Your task to perform on an android device: Open Google Chrome and click the shortcut for Amazon.com Image 0: 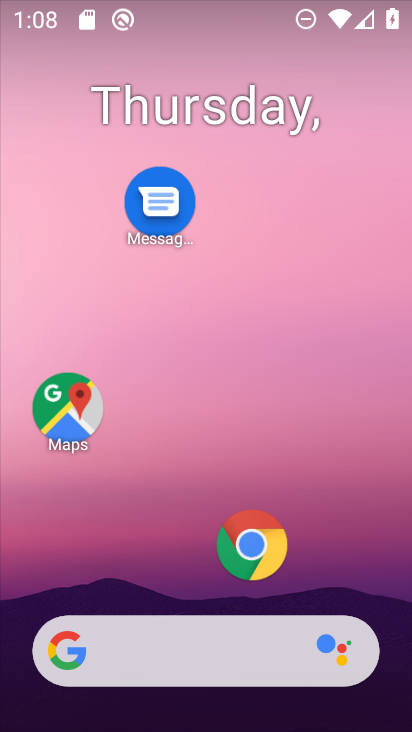
Step 0: click (267, 548)
Your task to perform on an android device: Open Google Chrome and click the shortcut for Amazon.com Image 1: 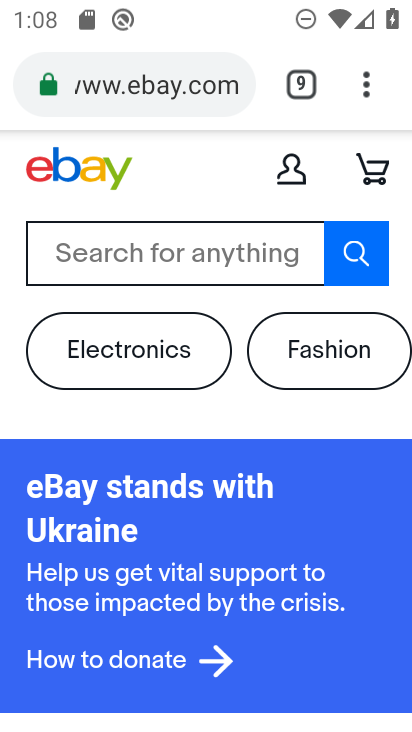
Step 1: click (285, 81)
Your task to perform on an android device: Open Google Chrome and click the shortcut for Amazon.com Image 2: 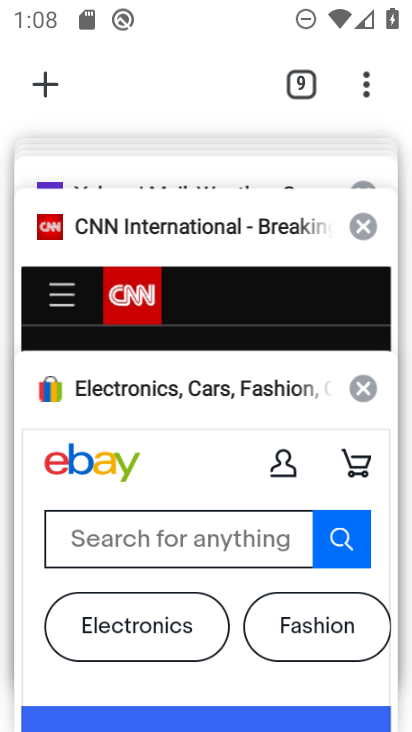
Step 2: click (41, 73)
Your task to perform on an android device: Open Google Chrome and click the shortcut for Amazon.com Image 3: 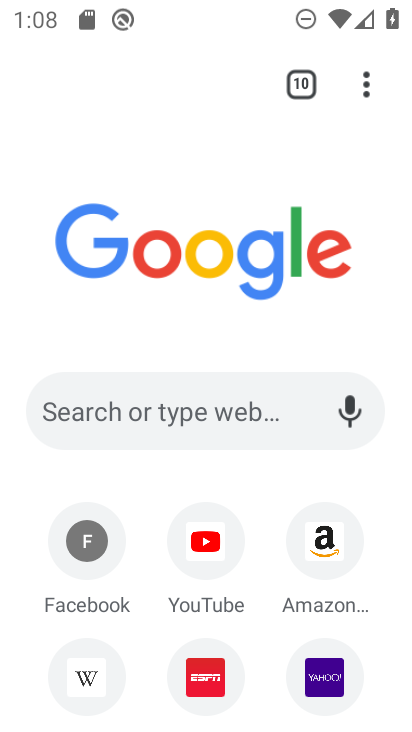
Step 3: click (312, 548)
Your task to perform on an android device: Open Google Chrome and click the shortcut for Amazon.com Image 4: 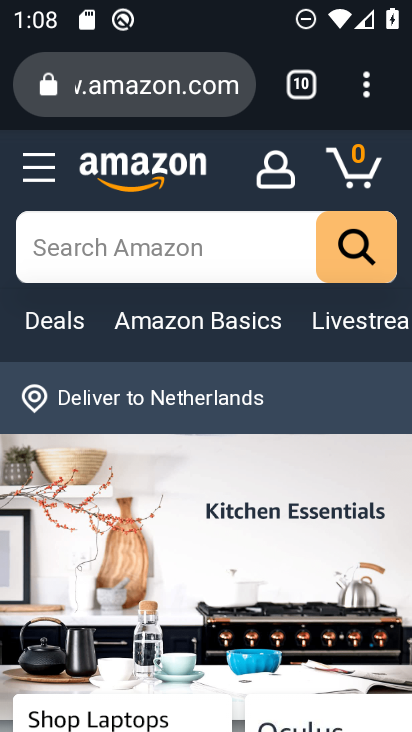
Step 4: task complete